Your task to perform on an android device: Go to battery settings Image 0: 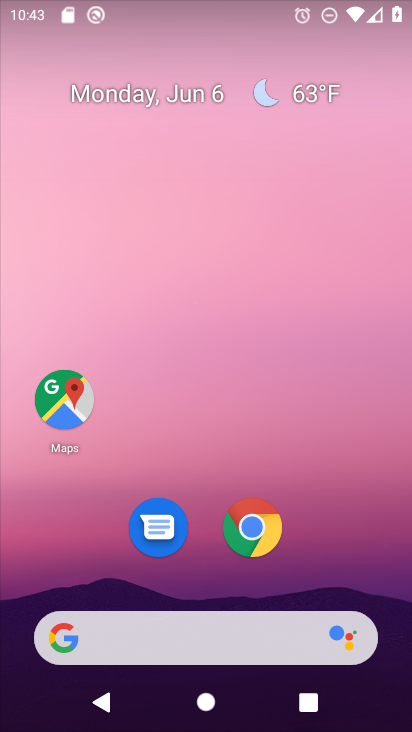
Step 0: drag from (351, 549) to (343, 178)
Your task to perform on an android device: Go to battery settings Image 1: 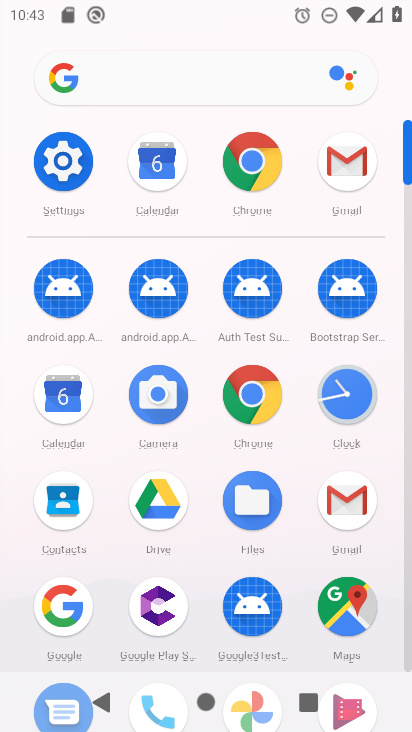
Step 1: click (77, 185)
Your task to perform on an android device: Go to battery settings Image 2: 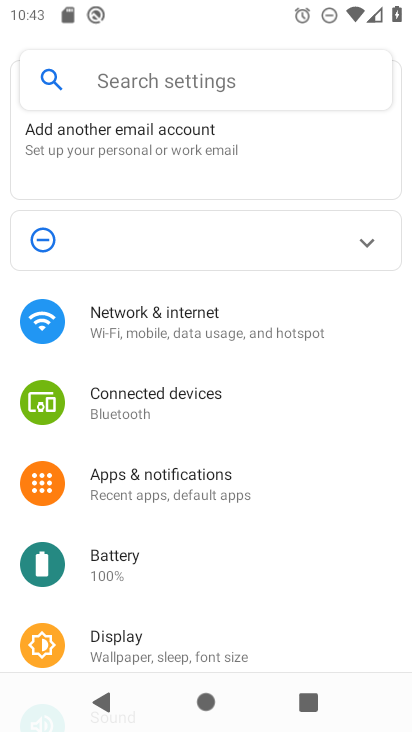
Step 2: drag from (317, 552) to (312, 345)
Your task to perform on an android device: Go to battery settings Image 3: 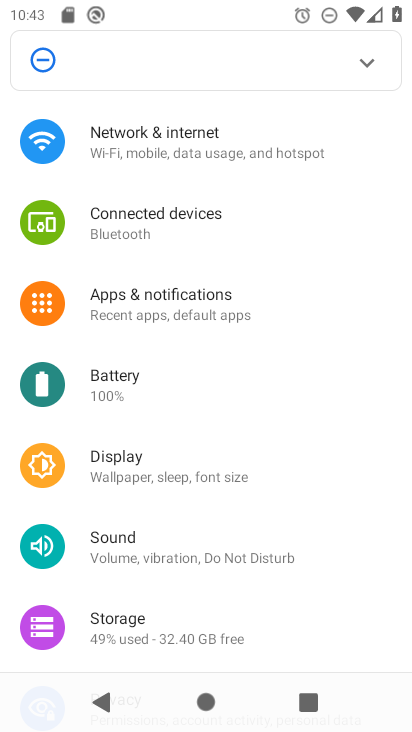
Step 3: drag from (328, 594) to (321, 383)
Your task to perform on an android device: Go to battery settings Image 4: 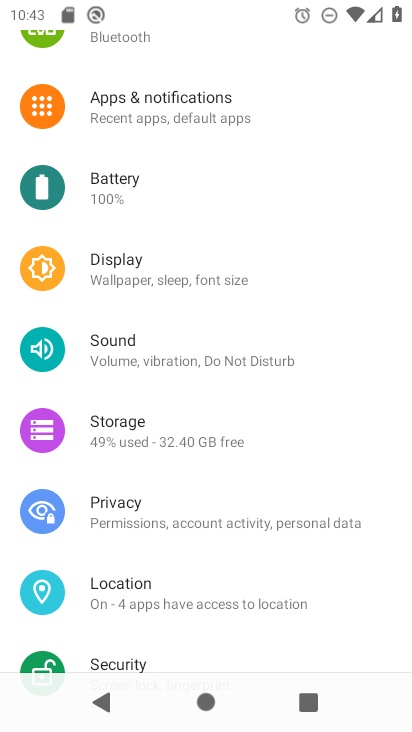
Step 4: drag from (353, 600) to (338, 393)
Your task to perform on an android device: Go to battery settings Image 5: 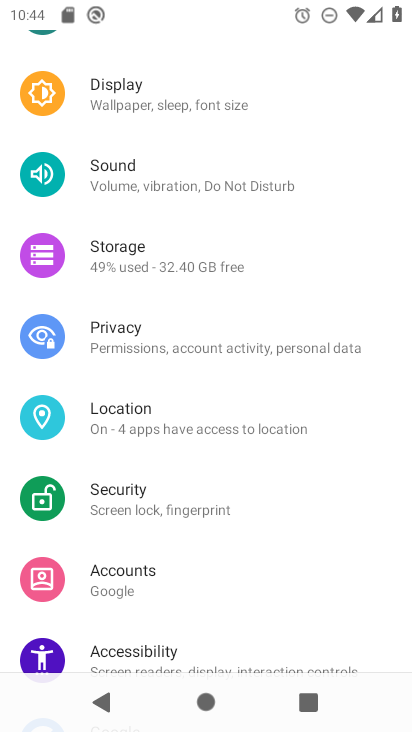
Step 5: drag from (339, 595) to (344, 408)
Your task to perform on an android device: Go to battery settings Image 6: 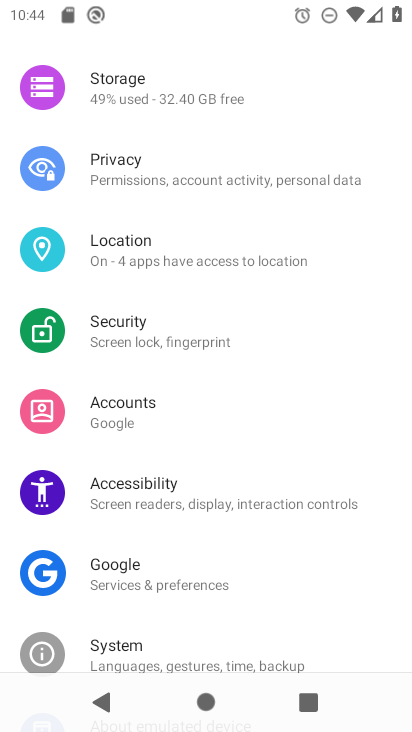
Step 6: drag from (341, 583) to (340, 431)
Your task to perform on an android device: Go to battery settings Image 7: 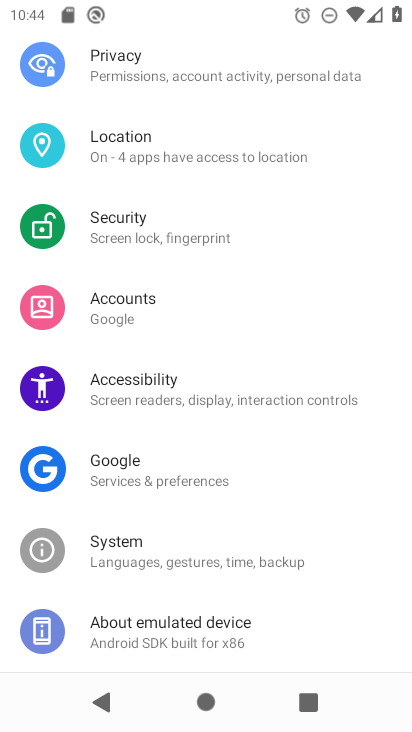
Step 7: drag from (325, 294) to (342, 512)
Your task to perform on an android device: Go to battery settings Image 8: 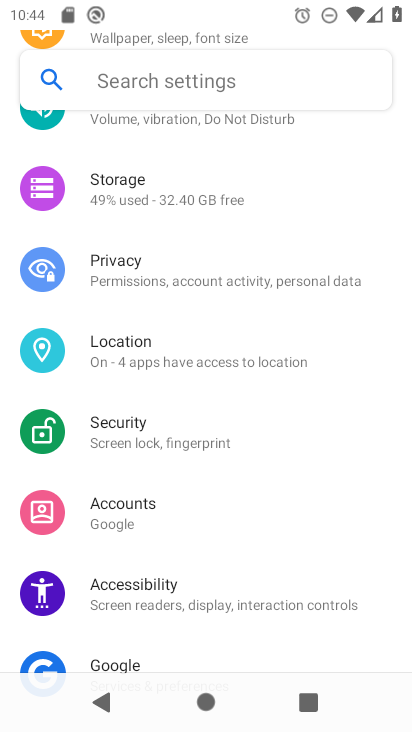
Step 8: drag from (323, 340) to (330, 457)
Your task to perform on an android device: Go to battery settings Image 9: 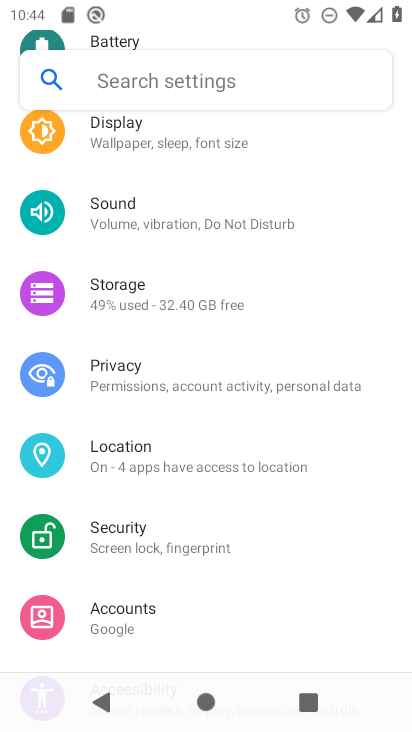
Step 9: drag from (331, 274) to (357, 459)
Your task to perform on an android device: Go to battery settings Image 10: 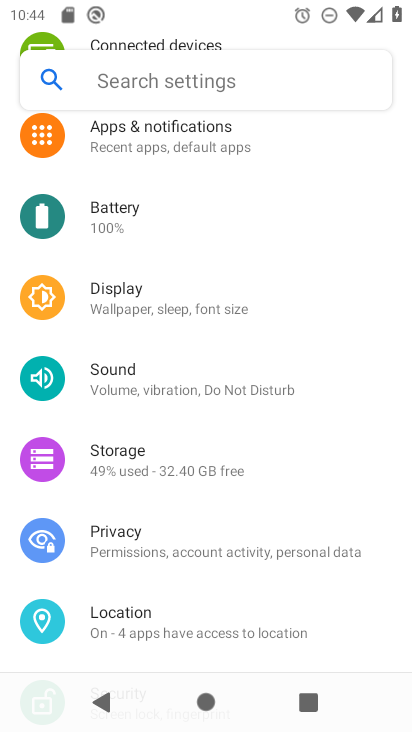
Step 10: drag from (328, 249) to (345, 382)
Your task to perform on an android device: Go to battery settings Image 11: 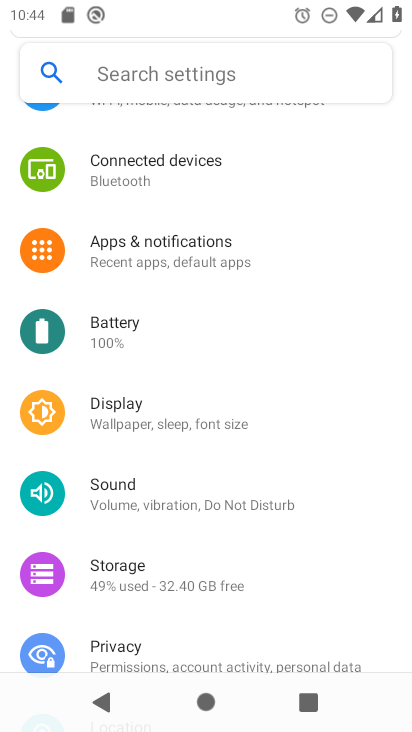
Step 11: click (139, 356)
Your task to perform on an android device: Go to battery settings Image 12: 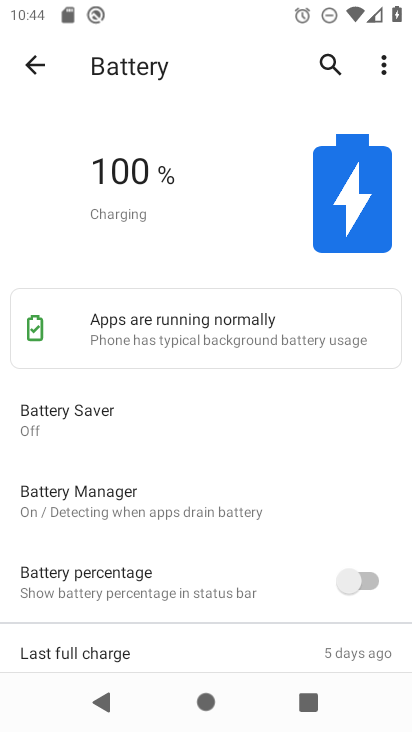
Step 12: task complete